Your task to perform on an android device: allow notifications from all sites in the chrome app Image 0: 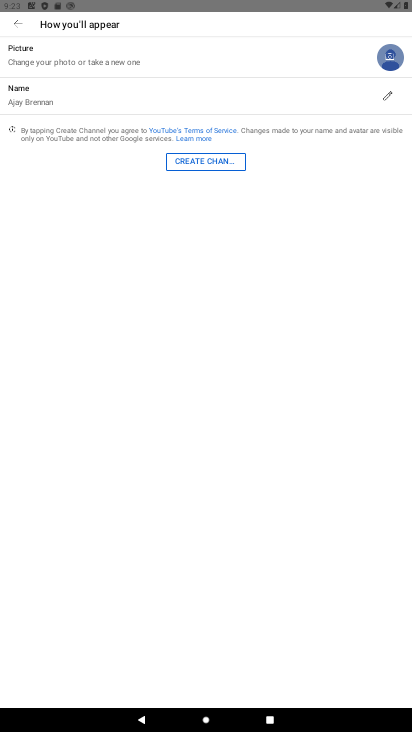
Step 0: press home button
Your task to perform on an android device: allow notifications from all sites in the chrome app Image 1: 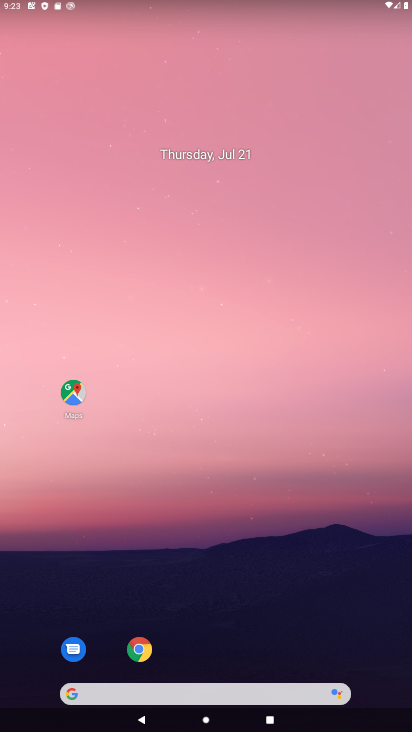
Step 1: click (137, 653)
Your task to perform on an android device: allow notifications from all sites in the chrome app Image 2: 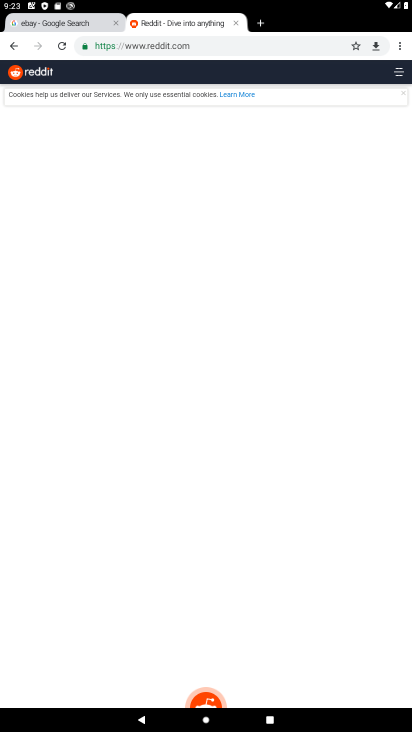
Step 2: click (398, 46)
Your task to perform on an android device: allow notifications from all sites in the chrome app Image 3: 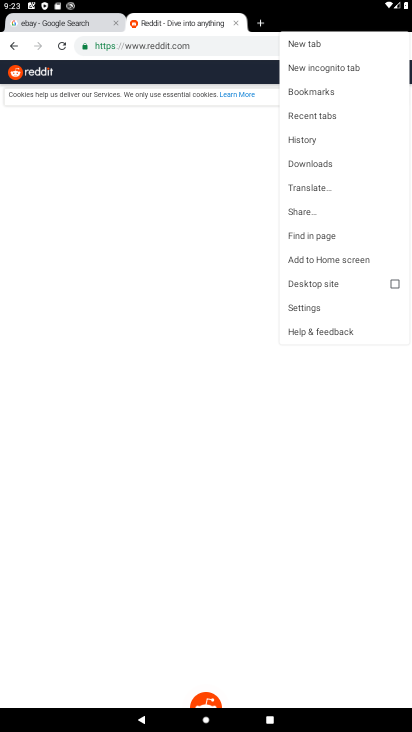
Step 3: click (296, 307)
Your task to perform on an android device: allow notifications from all sites in the chrome app Image 4: 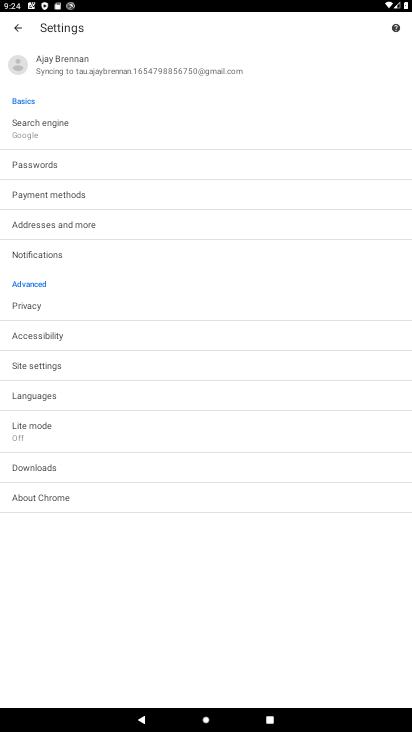
Step 4: click (30, 252)
Your task to perform on an android device: allow notifications from all sites in the chrome app Image 5: 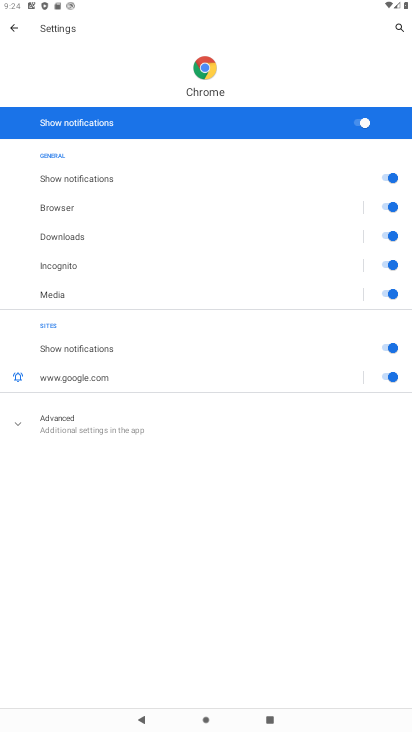
Step 5: task complete